Your task to perform on an android device: create a new album in the google photos Image 0: 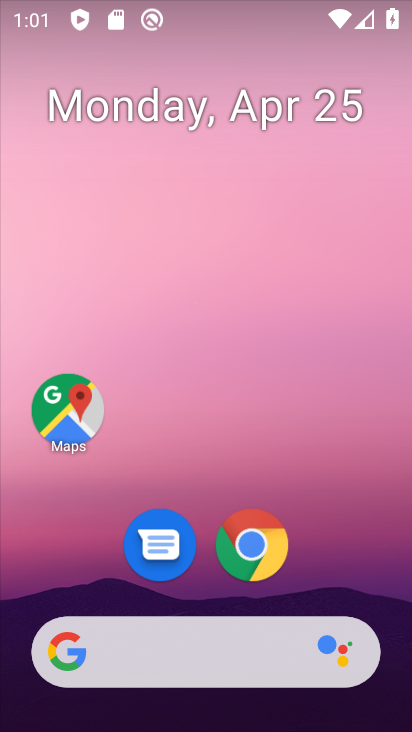
Step 0: drag from (326, 574) to (278, 66)
Your task to perform on an android device: create a new album in the google photos Image 1: 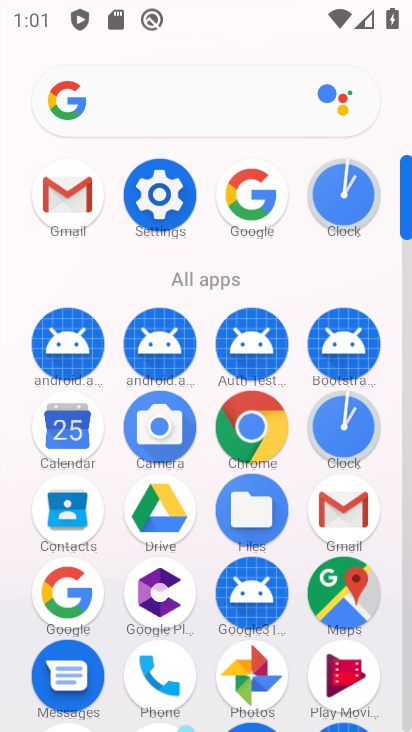
Step 1: click (256, 667)
Your task to perform on an android device: create a new album in the google photos Image 2: 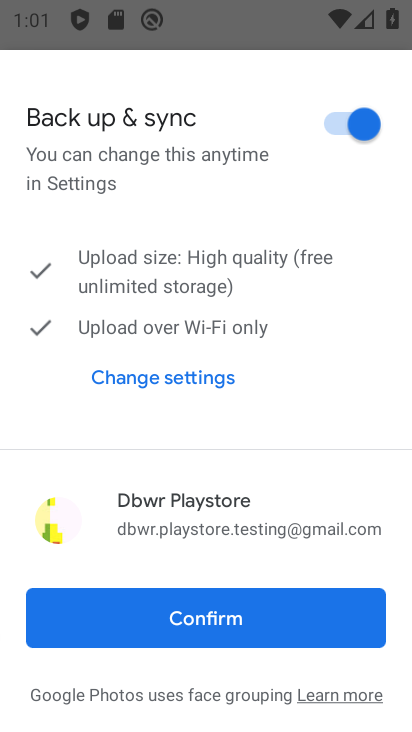
Step 2: click (250, 622)
Your task to perform on an android device: create a new album in the google photos Image 3: 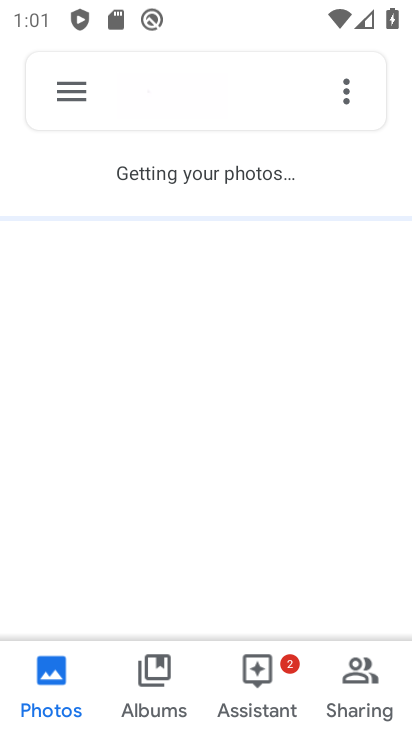
Step 3: click (349, 89)
Your task to perform on an android device: create a new album in the google photos Image 4: 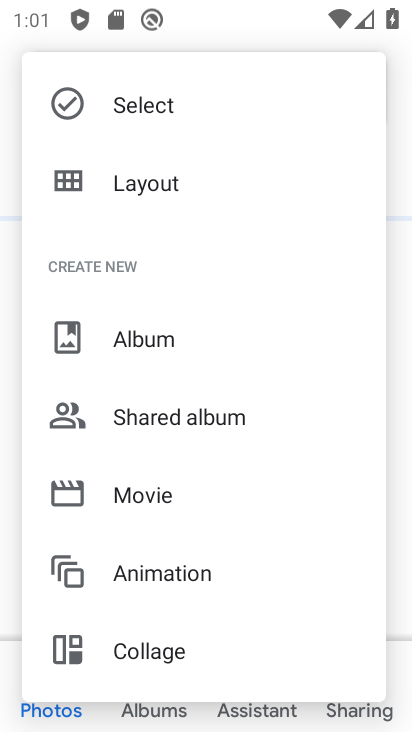
Step 4: click (184, 341)
Your task to perform on an android device: create a new album in the google photos Image 5: 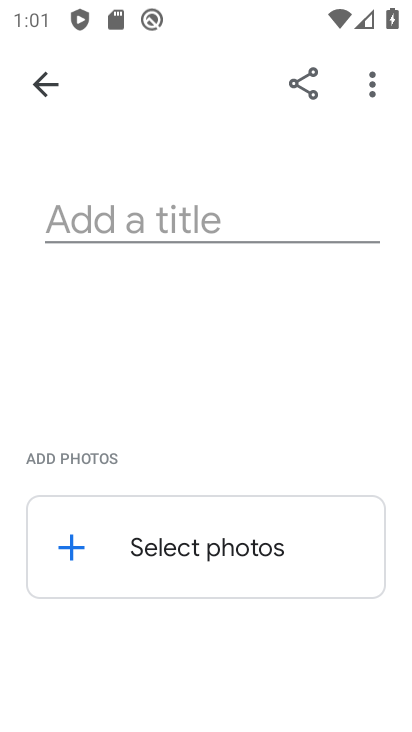
Step 5: click (218, 212)
Your task to perform on an android device: create a new album in the google photos Image 6: 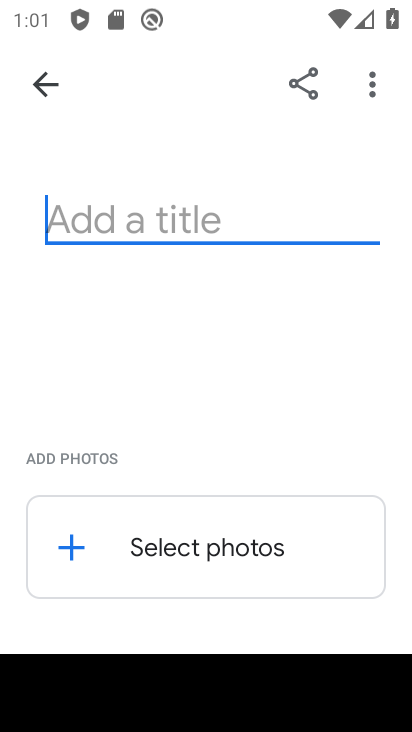
Step 6: type "kgfghv"
Your task to perform on an android device: create a new album in the google photos Image 7: 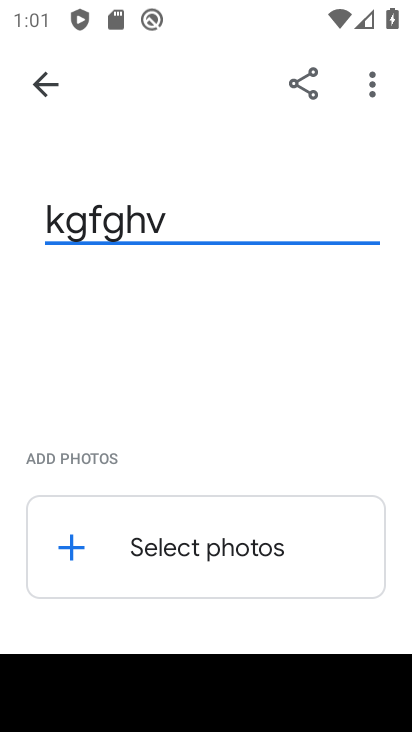
Step 7: click (125, 549)
Your task to perform on an android device: create a new album in the google photos Image 8: 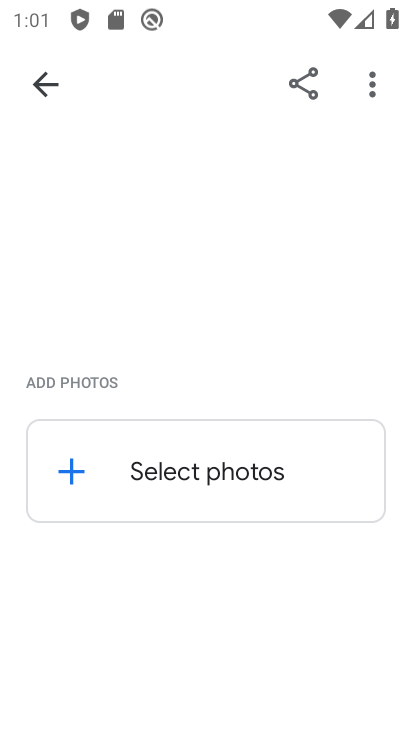
Step 8: click (68, 468)
Your task to perform on an android device: create a new album in the google photos Image 9: 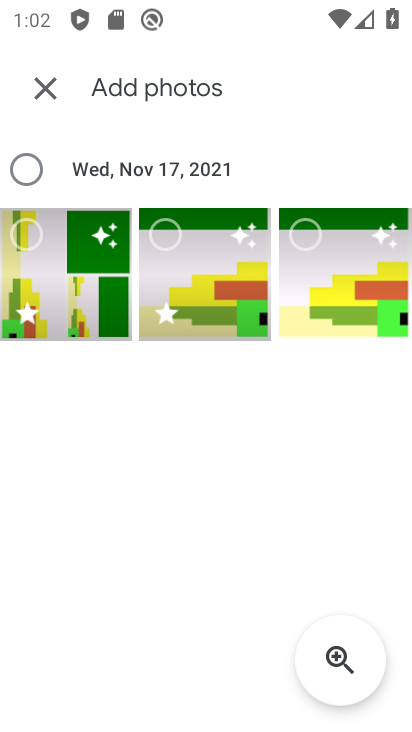
Step 9: click (171, 235)
Your task to perform on an android device: create a new album in the google photos Image 10: 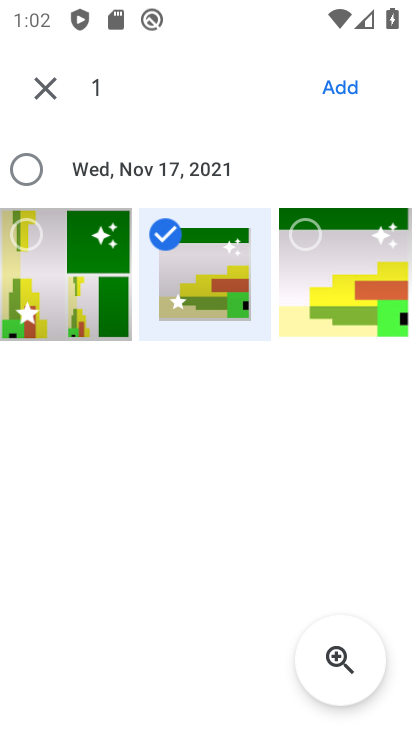
Step 10: click (308, 232)
Your task to perform on an android device: create a new album in the google photos Image 11: 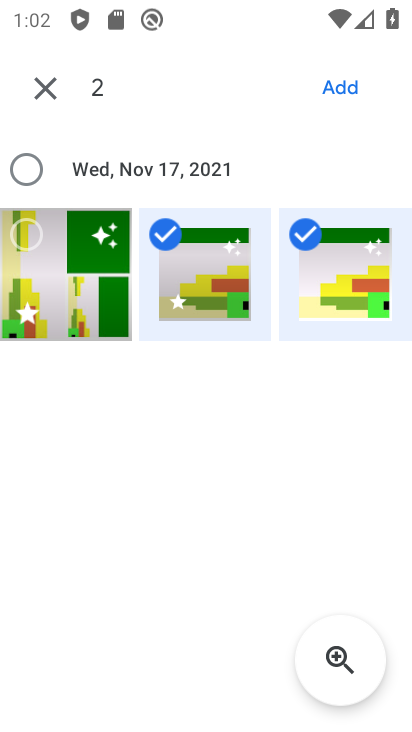
Step 11: click (343, 89)
Your task to perform on an android device: create a new album in the google photos Image 12: 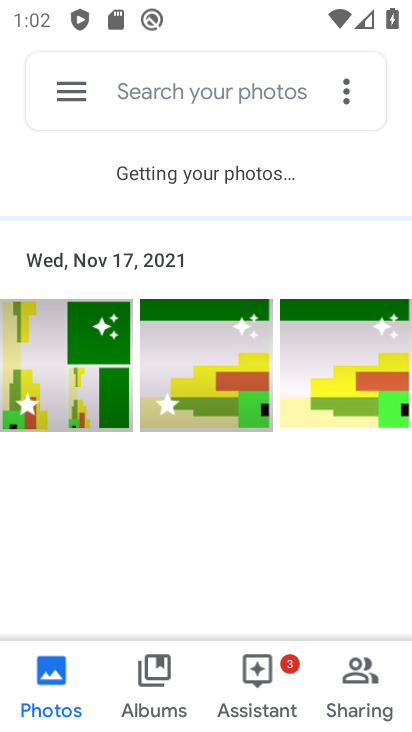
Step 12: task complete